Your task to perform on an android device: snooze an email in the gmail app Image 0: 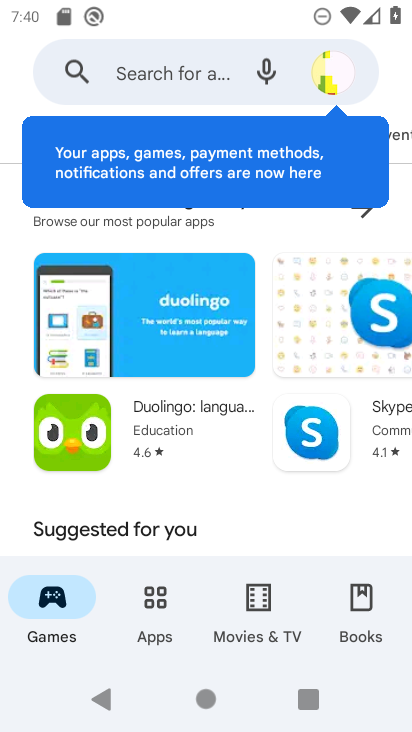
Step 0: press home button
Your task to perform on an android device: snooze an email in the gmail app Image 1: 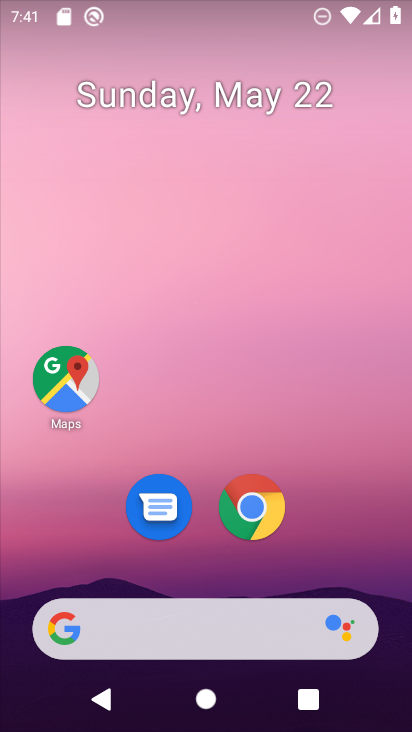
Step 1: drag from (166, 706) to (104, 45)
Your task to perform on an android device: snooze an email in the gmail app Image 2: 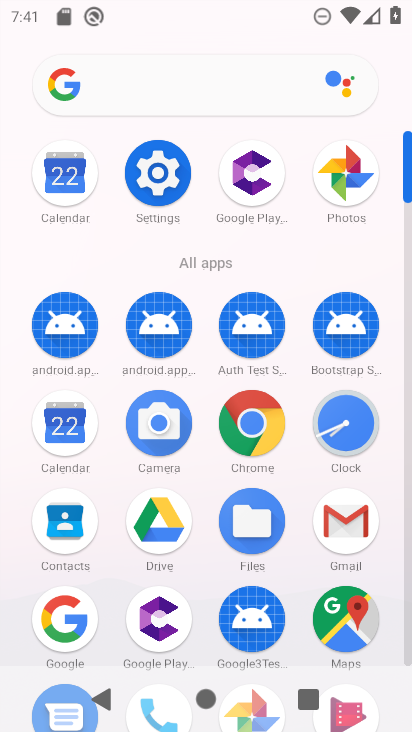
Step 2: click (332, 513)
Your task to perform on an android device: snooze an email in the gmail app Image 3: 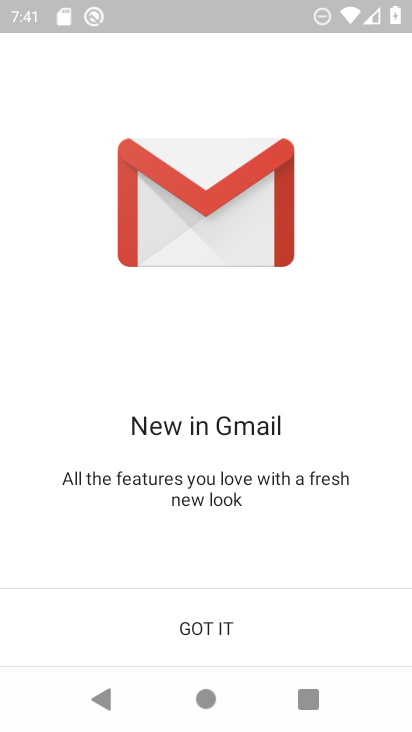
Step 3: click (202, 607)
Your task to perform on an android device: snooze an email in the gmail app Image 4: 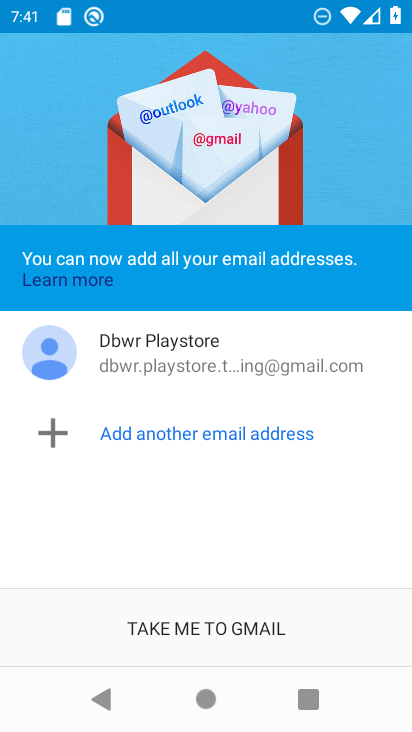
Step 4: click (220, 642)
Your task to perform on an android device: snooze an email in the gmail app Image 5: 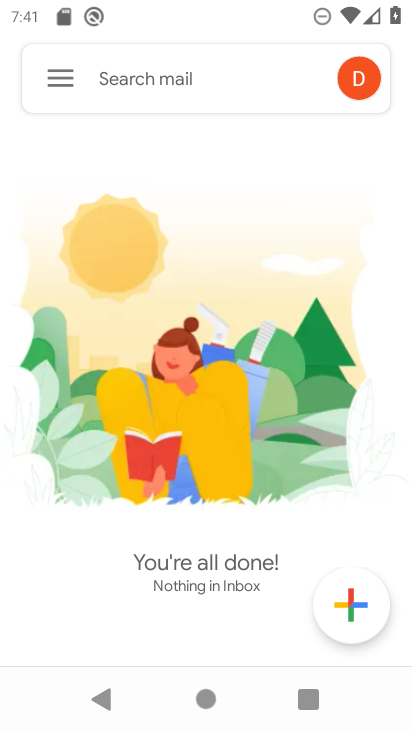
Step 5: click (239, 316)
Your task to perform on an android device: snooze an email in the gmail app Image 6: 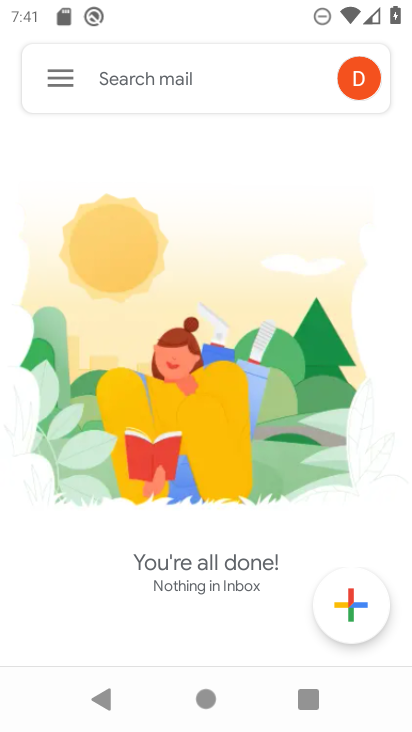
Step 6: click (65, 77)
Your task to perform on an android device: snooze an email in the gmail app Image 7: 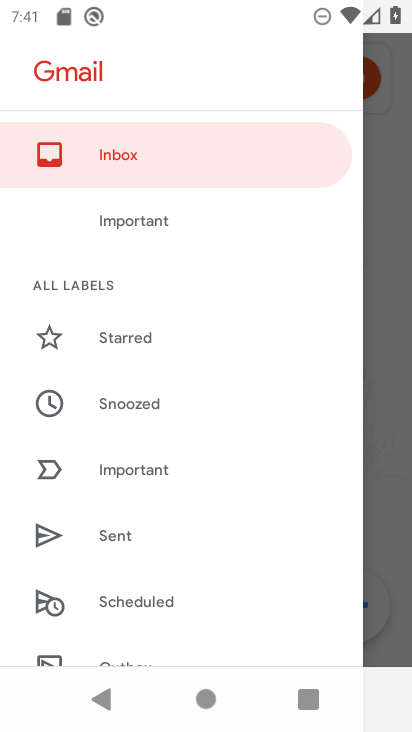
Step 7: drag from (165, 613) to (227, 109)
Your task to perform on an android device: snooze an email in the gmail app Image 8: 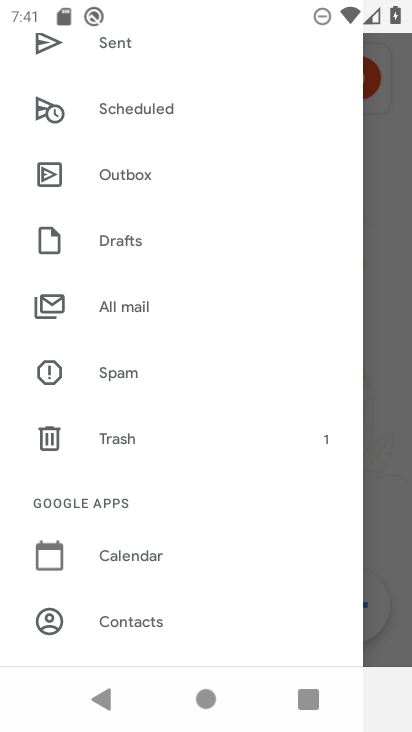
Step 8: click (182, 302)
Your task to perform on an android device: snooze an email in the gmail app Image 9: 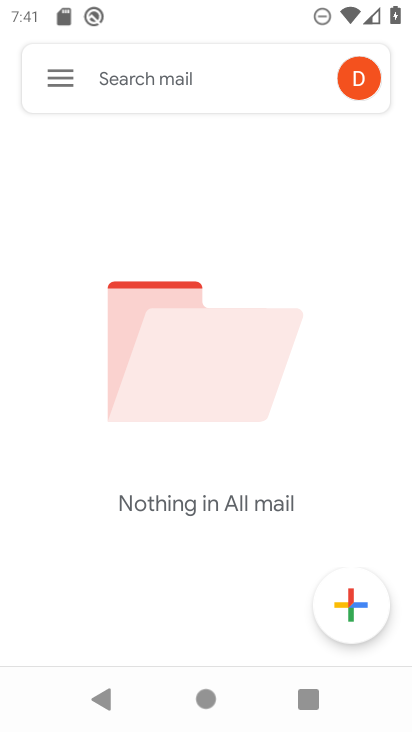
Step 9: task complete